Your task to perform on an android device: Open Android settings Image 0: 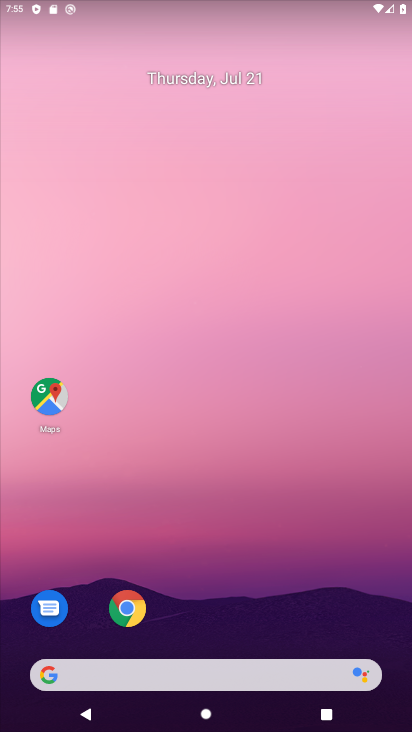
Step 0: drag from (21, 706) to (232, 10)
Your task to perform on an android device: Open Android settings Image 1: 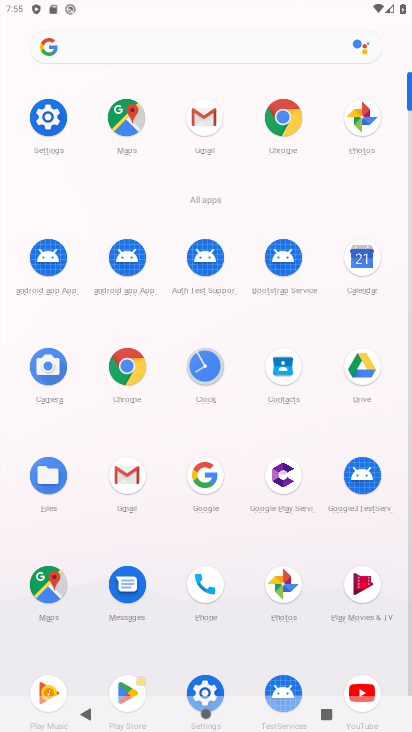
Step 1: click (201, 684)
Your task to perform on an android device: Open Android settings Image 2: 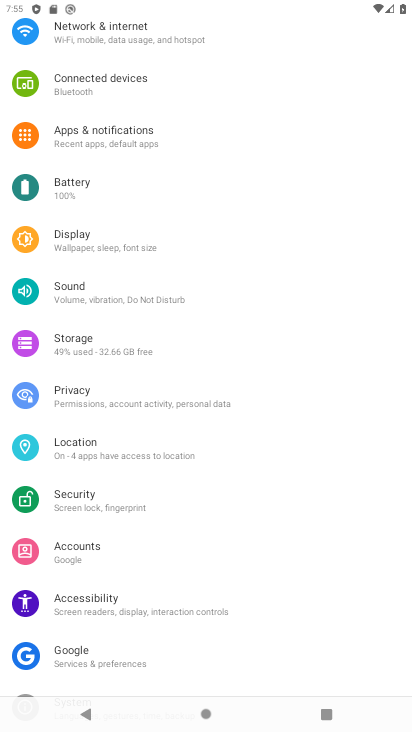
Step 2: drag from (200, 623) to (240, 252)
Your task to perform on an android device: Open Android settings Image 3: 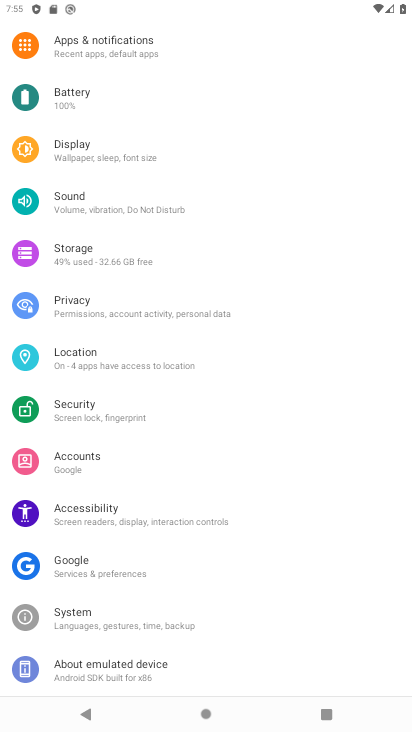
Step 3: click (81, 667)
Your task to perform on an android device: Open Android settings Image 4: 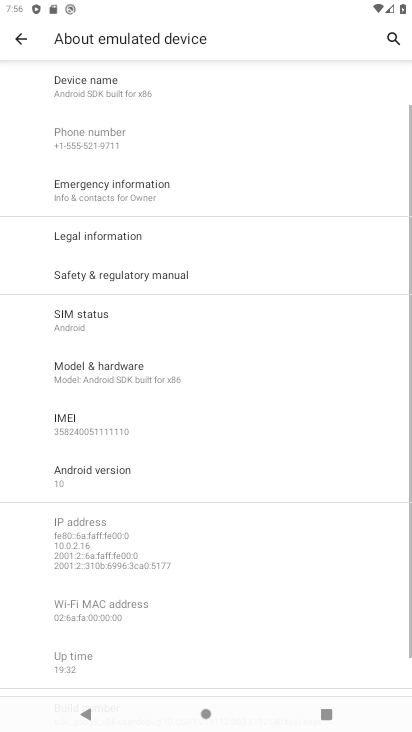
Step 4: click (84, 473)
Your task to perform on an android device: Open Android settings Image 5: 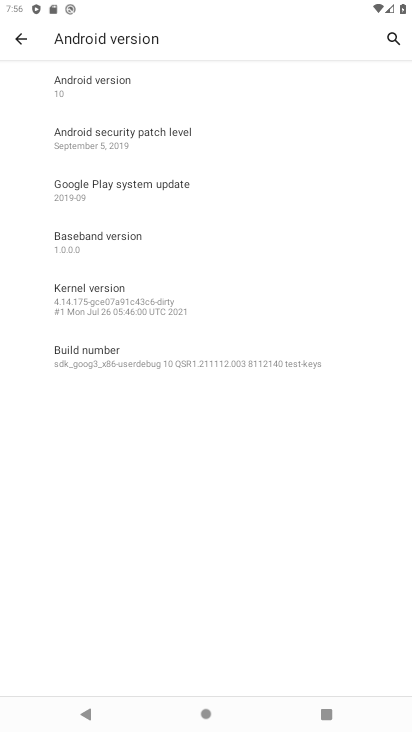
Step 5: task complete